Your task to perform on an android device: turn on notifications settings in the gmail app Image 0: 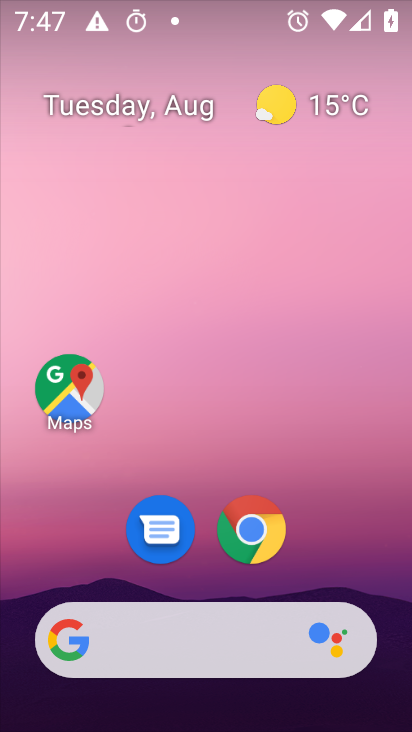
Step 0: press home button
Your task to perform on an android device: turn on notifications settings in the gmail app Image 1: 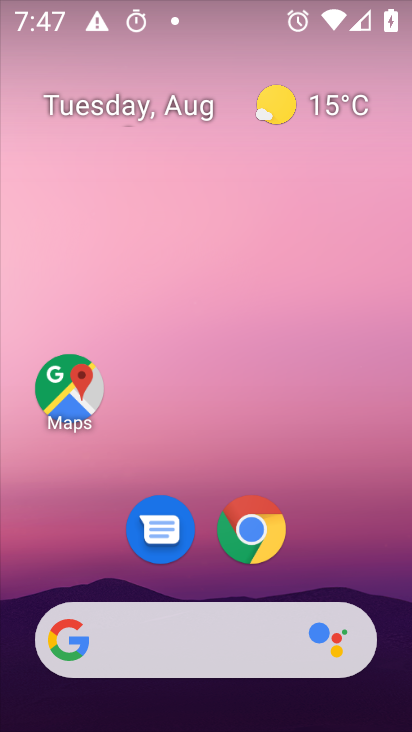
Step 1: drag from (211, 539) to (227, 0)
Your task to perform on an android device: turn on notifications settings in the gmail app Image 2: 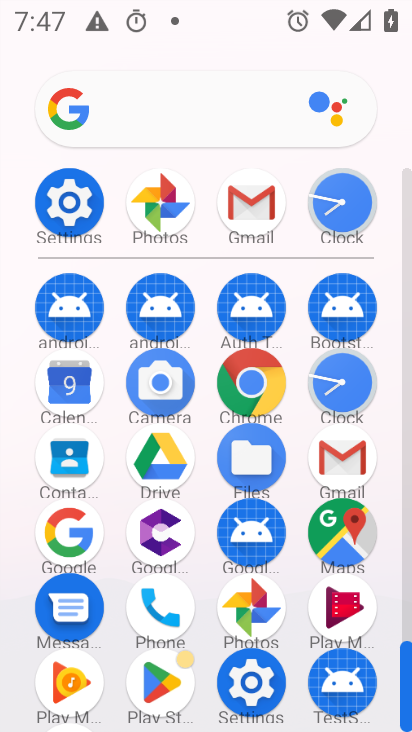
Step 2: click (236, 197)
Your task to perform on an android device: turn on notifications settings in the gmail app Image 3: 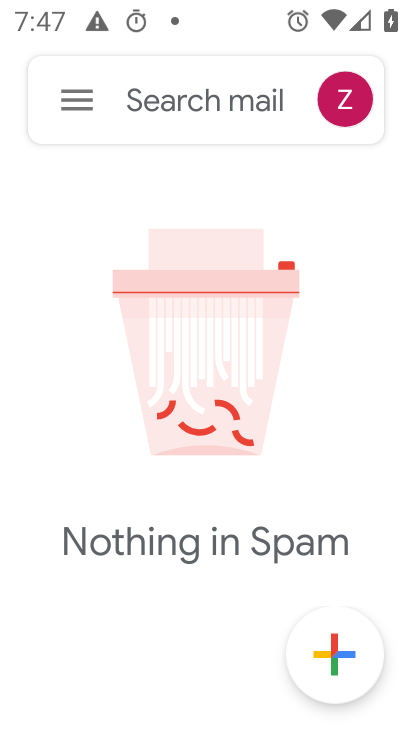
Step 3: click (92, 99)
Your task to perform on an android device: turn on notifications settings in the gmail app Image 4: 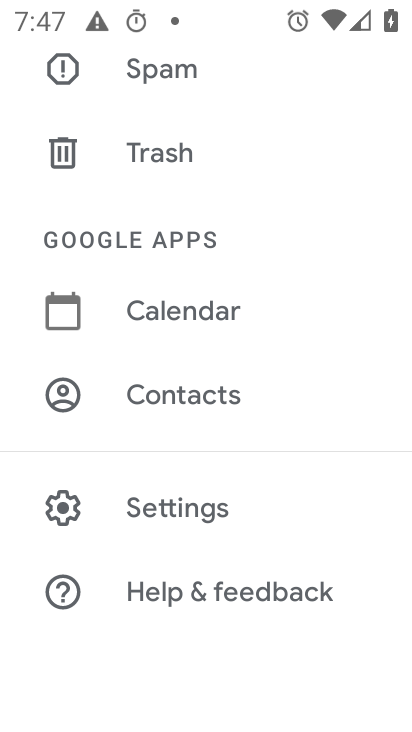
Step 4: click (177, 508)
Your task to perform on an android device: turn on notifications settings in the gmail app Image 5: 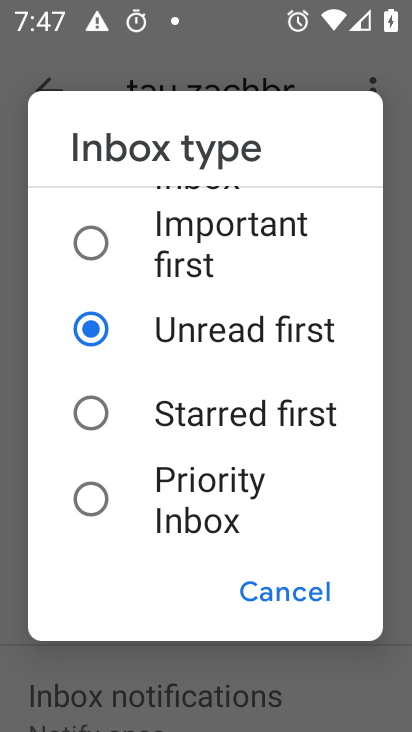
Step 5: click (278, 586)
Your task to perform on an android device: turn on notifications settings in the gmail app Image 6: 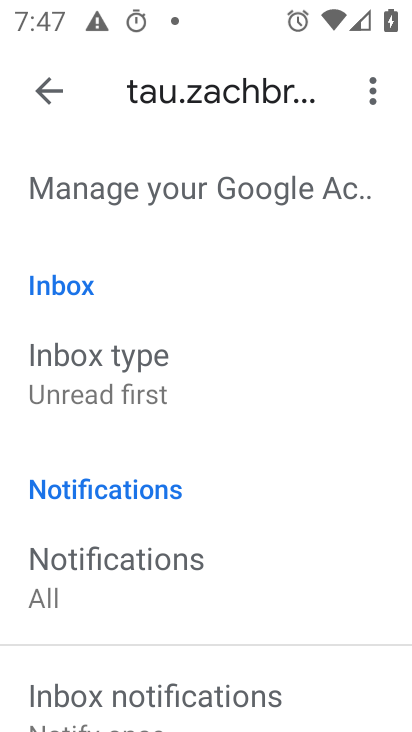
Step 6: drag from (272, 582) to (319, 120)
Your task to perform on an android device: turn on notifications settings in the gmail app Image 7: 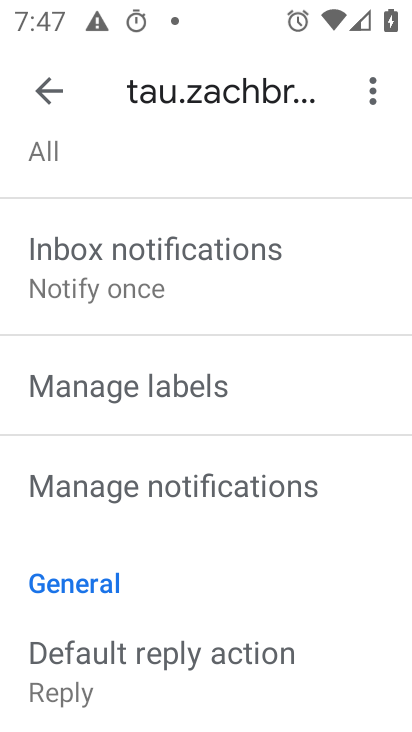
Step 7: click (184, 486)
Your task to perform on an android device: turn on notifications settings in the gmail app Image 8: 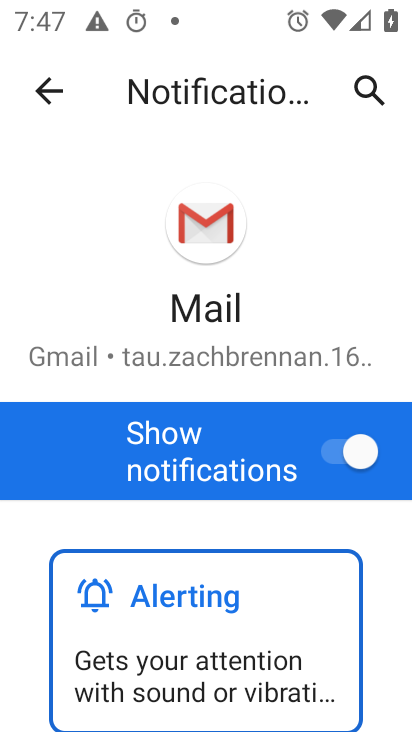
Step 8: task complete